Your task to perform on an android device: change text size in settings app Image 0: 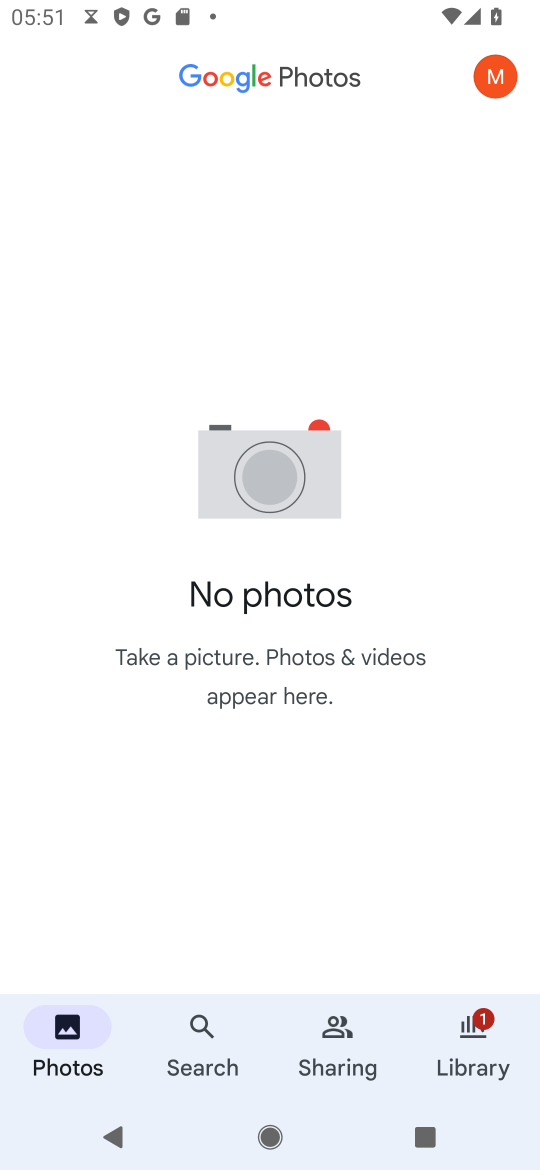
Step 0: press home button
Your task to perform on an android device: change text size in settings app Image 1: 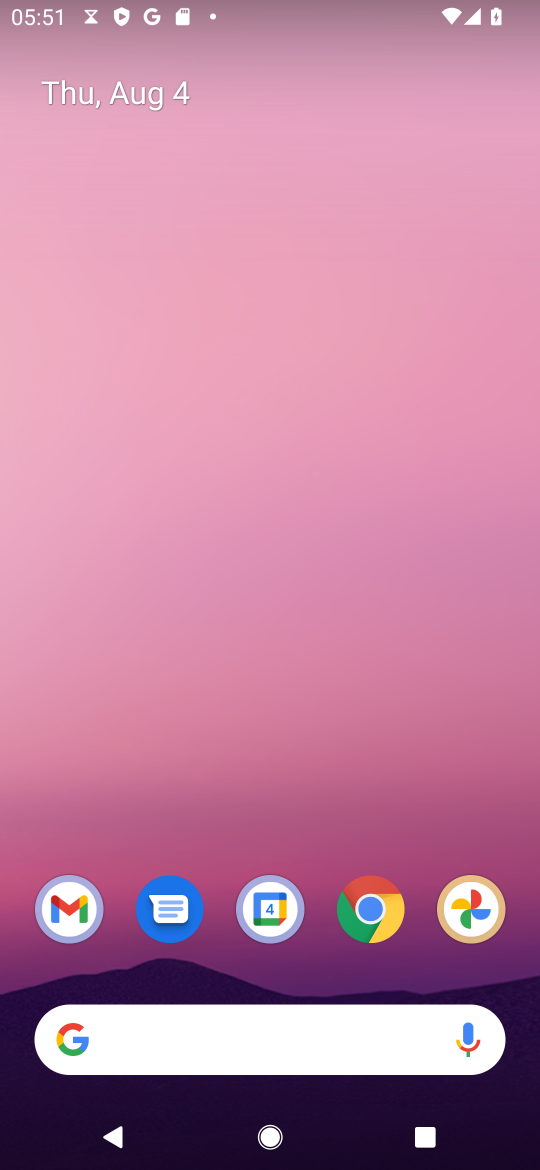
Step 1: drag from (352, 521) to (362, 391)
Your task to perform on an android device: change text size in settings app Image 2: 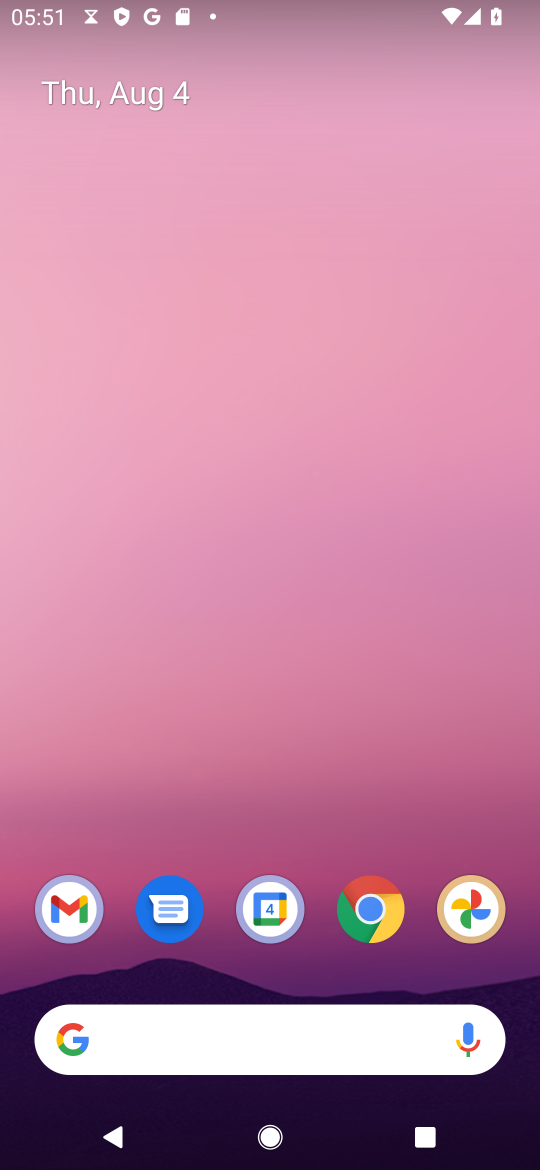
Step 2: drag from (255, 982) to (410, 270)
Your task to perform on an android device: change text size in settings app Image 3: 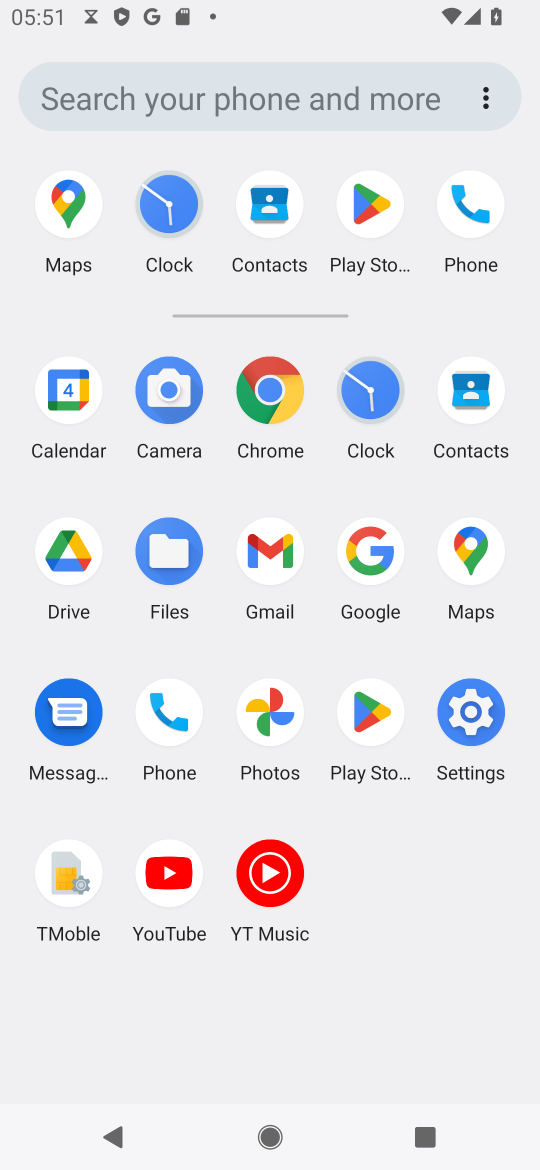
Step 3: click (465, 705)
Your task to perform on an android device: change text size in settings app Image 4: 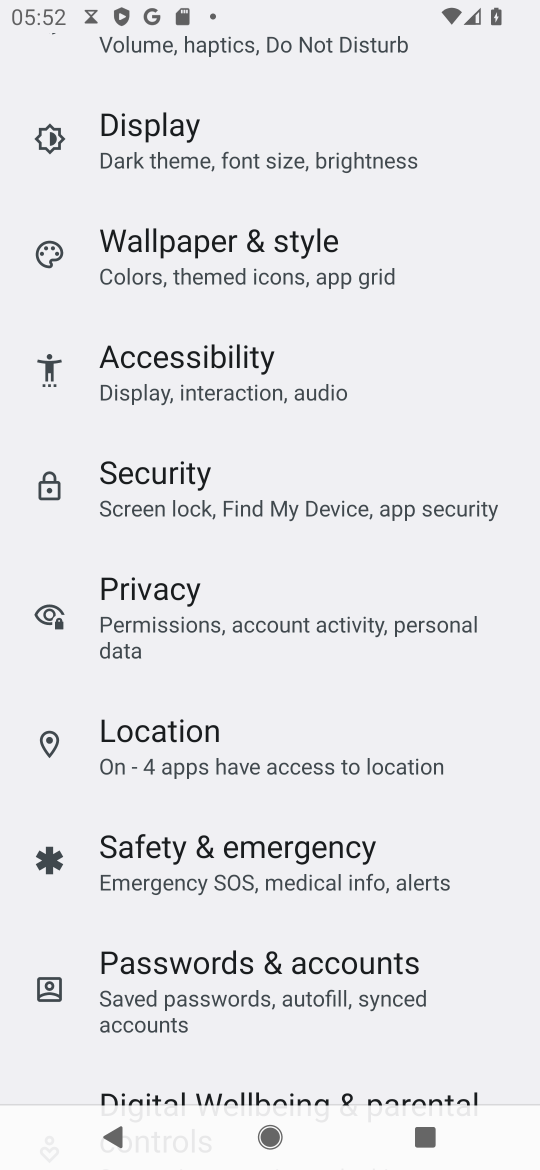
Step 4: click (245, 158)
Your task to perform on an android device: change text size in settings app Image 5: 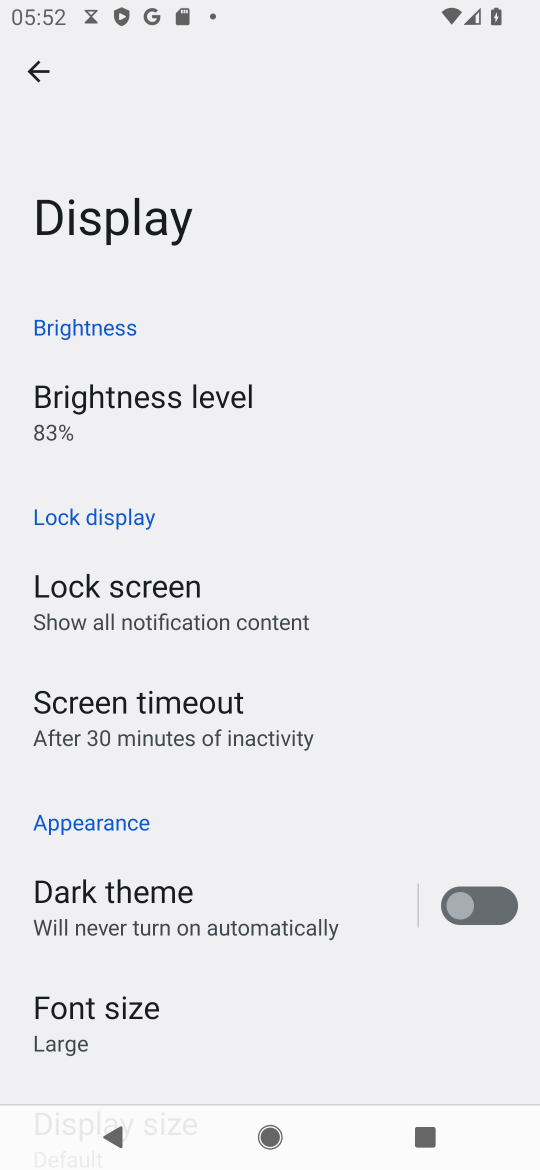
Step 5: drag from (247, 854) to (432, 322)
Your task to perform on an android device: change text size in settings app Image 6: 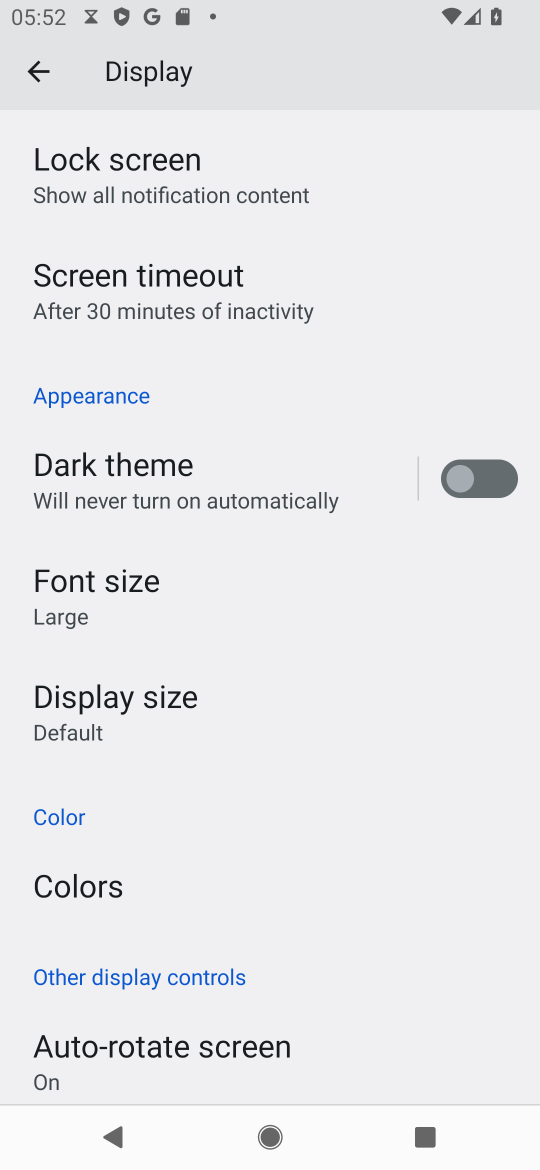
Step 6: click (147, 707)
Your task to perform on an android device: change text size in settings app Image 7: 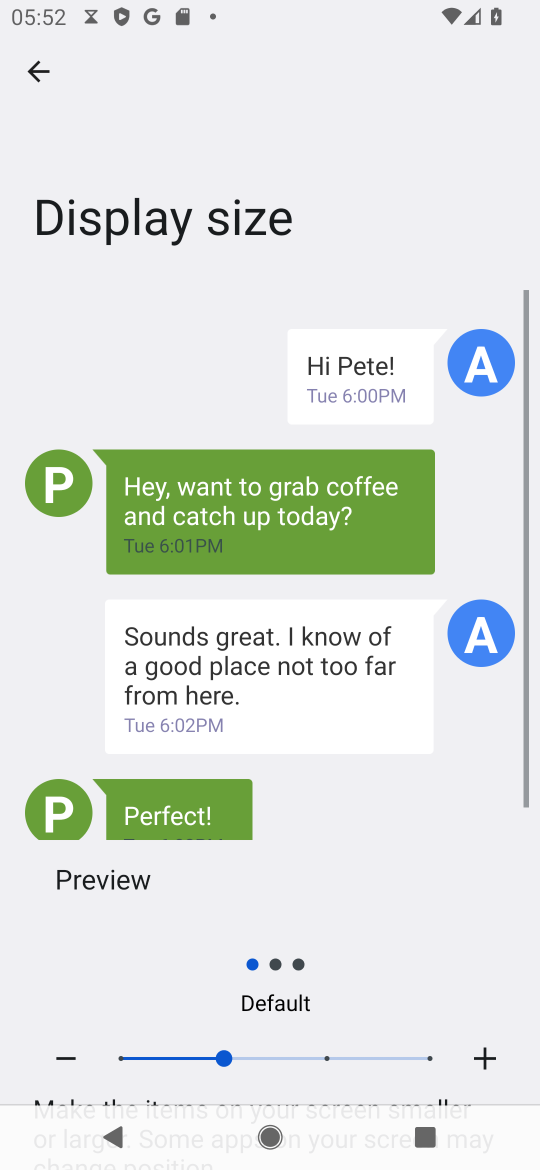
Step 7: click (35, 85)
Your task to perform on an android device: change text size in settings app Image 8: 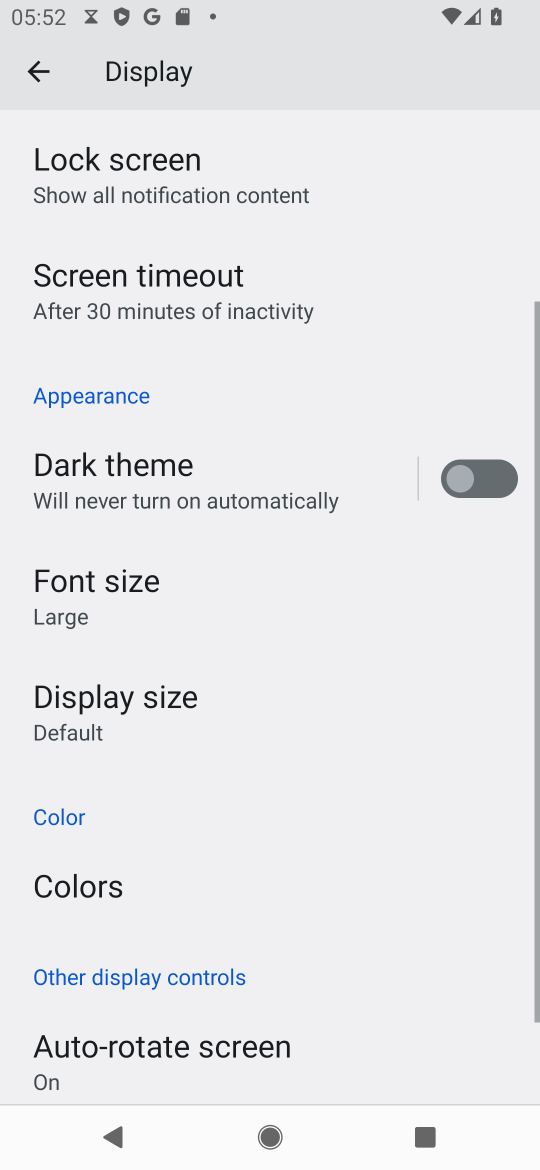
Step 8: click (132, 604)
Your task to perform on an android device: change text size in settings app Image 9: 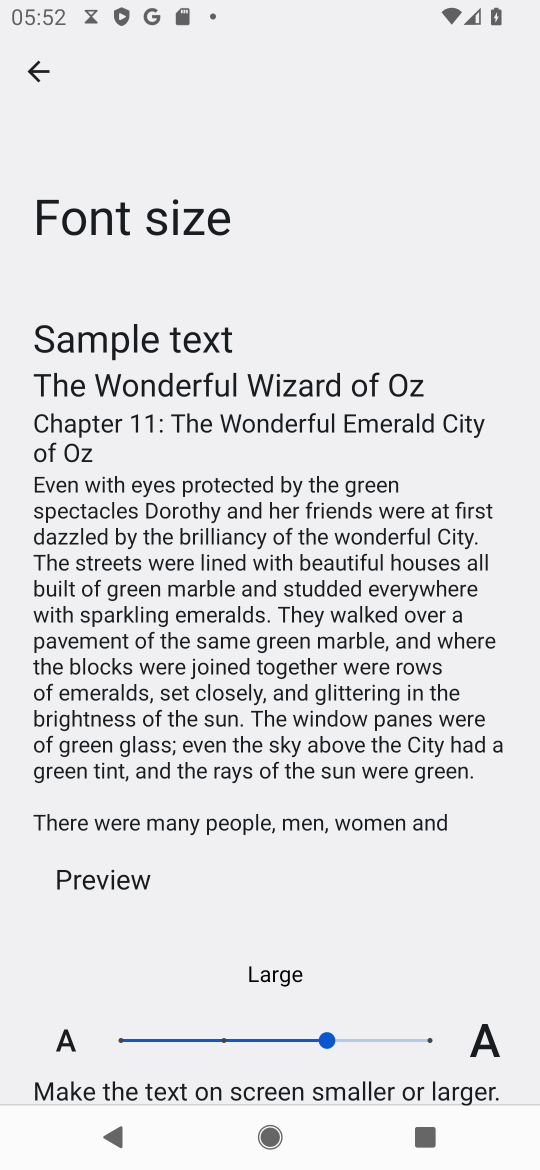
Step 9: click (226, 1041)
Your task to perform on an android device: change text size in settings app Image 10: 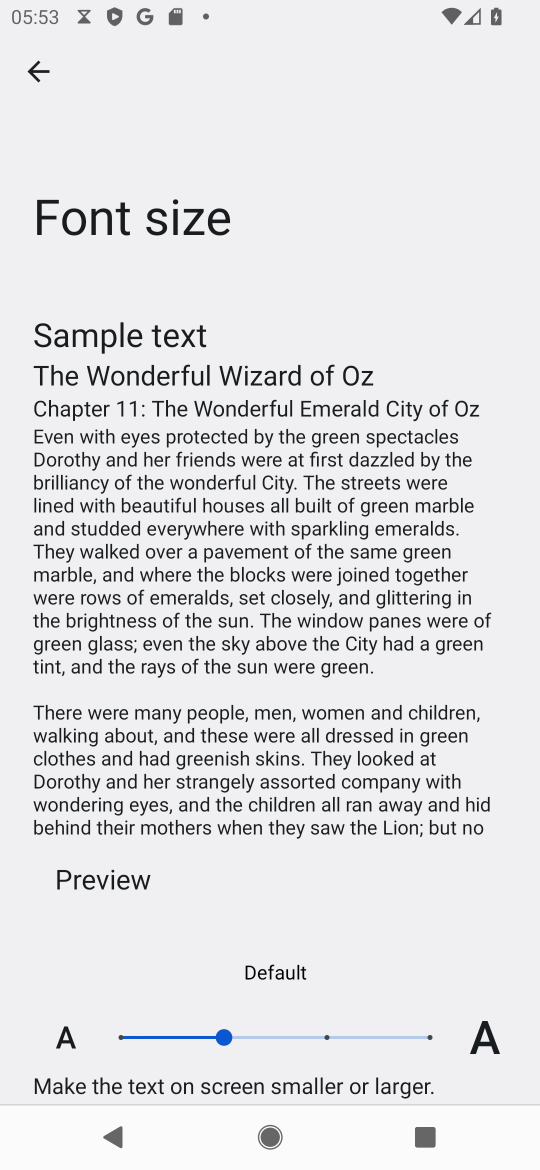
Step 10: task complete